Your task to perform on an android device: delete a single message in the gmail app Image 0: 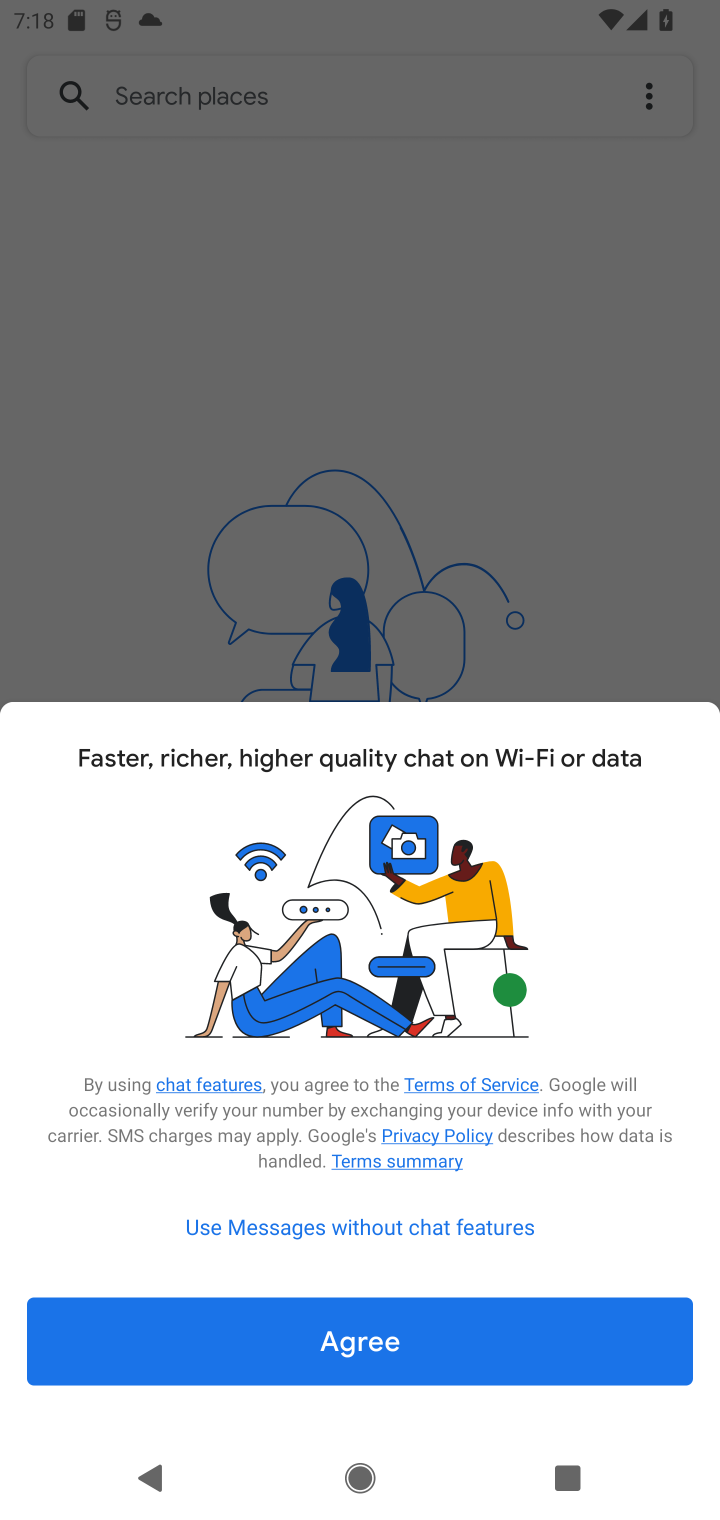
Step 0: press home button
Your task to perform on an android device: delete a single message in the gmail app Image 1: 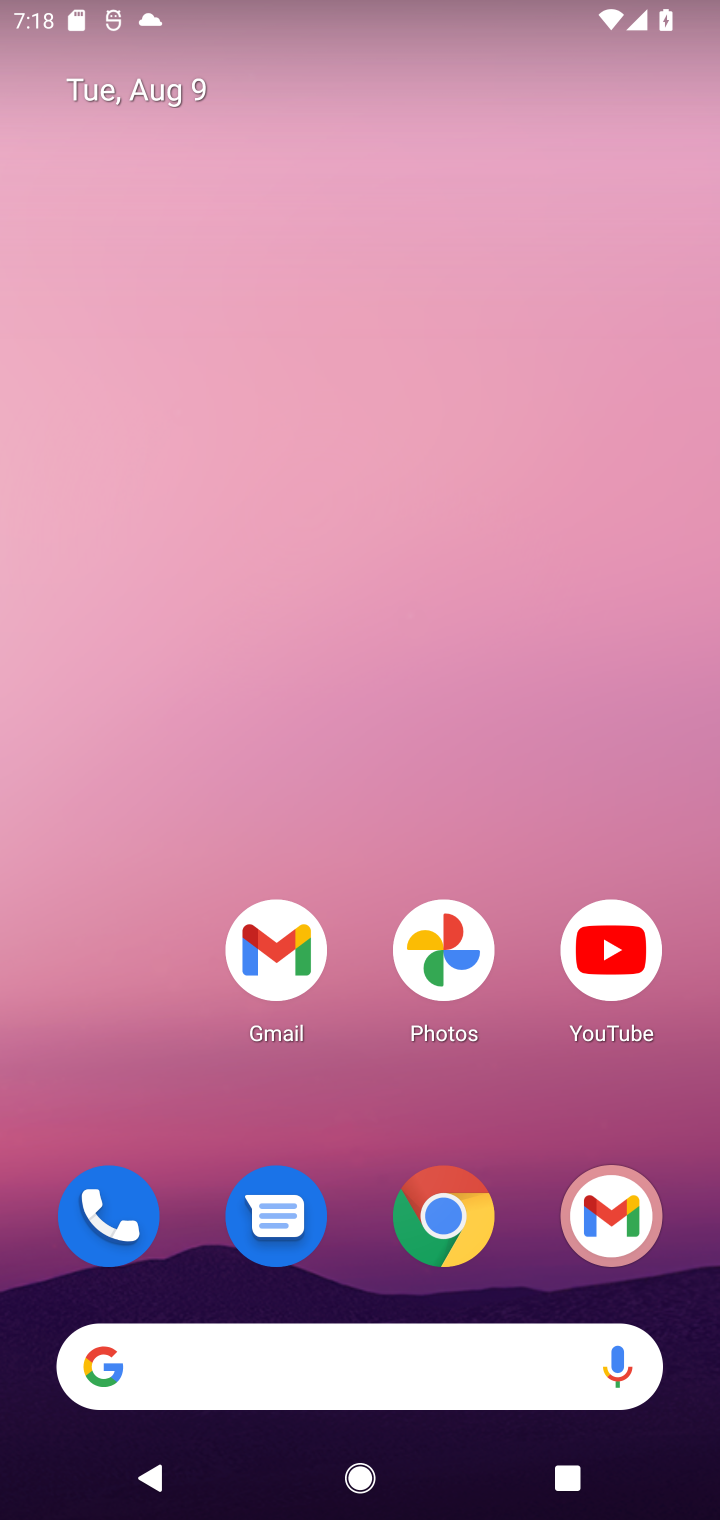
Step 1: click (280, 955)
Your task to perform on an android device: delete a single message in the gmail app Image 2: 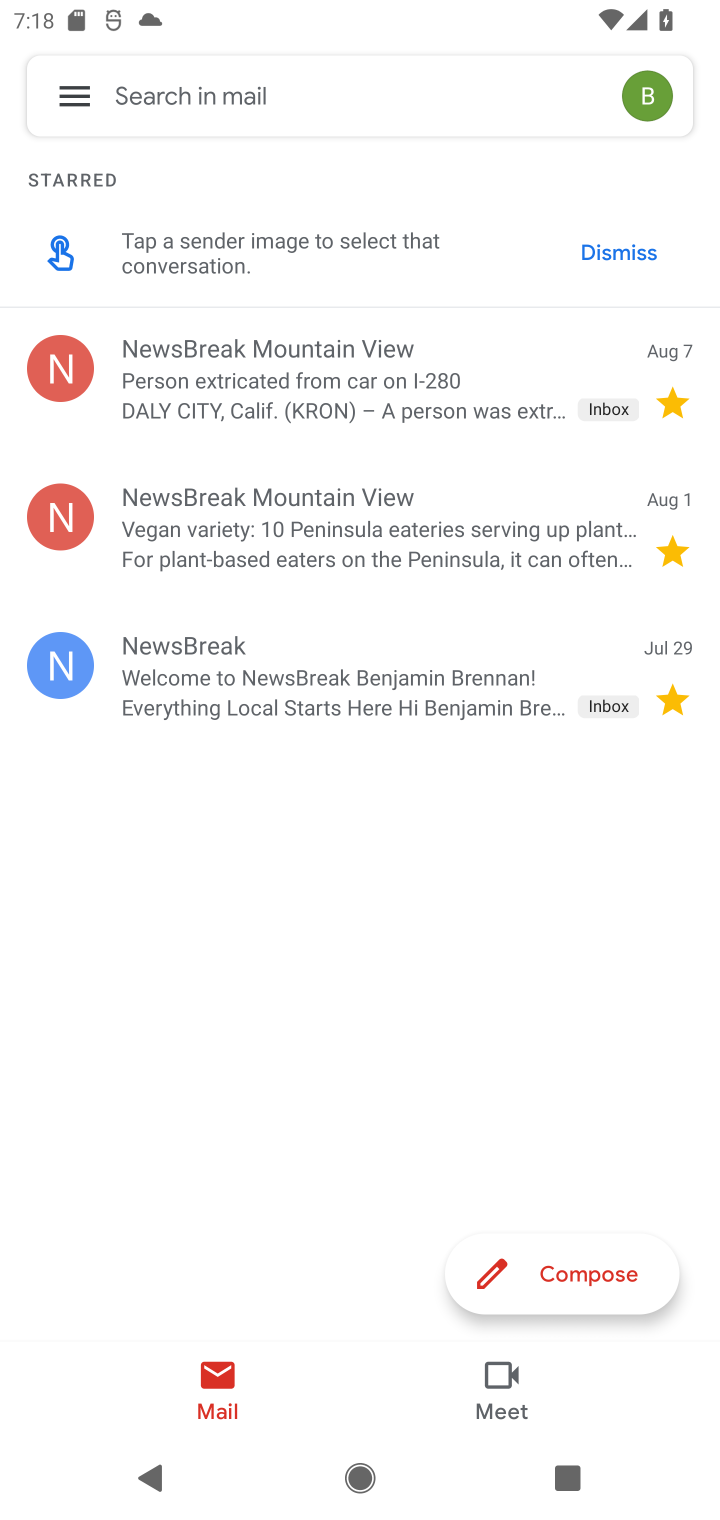
Step 2: click (69, 81)
Your task to perform on an android device: delete a single message in the gmail app Image 3: 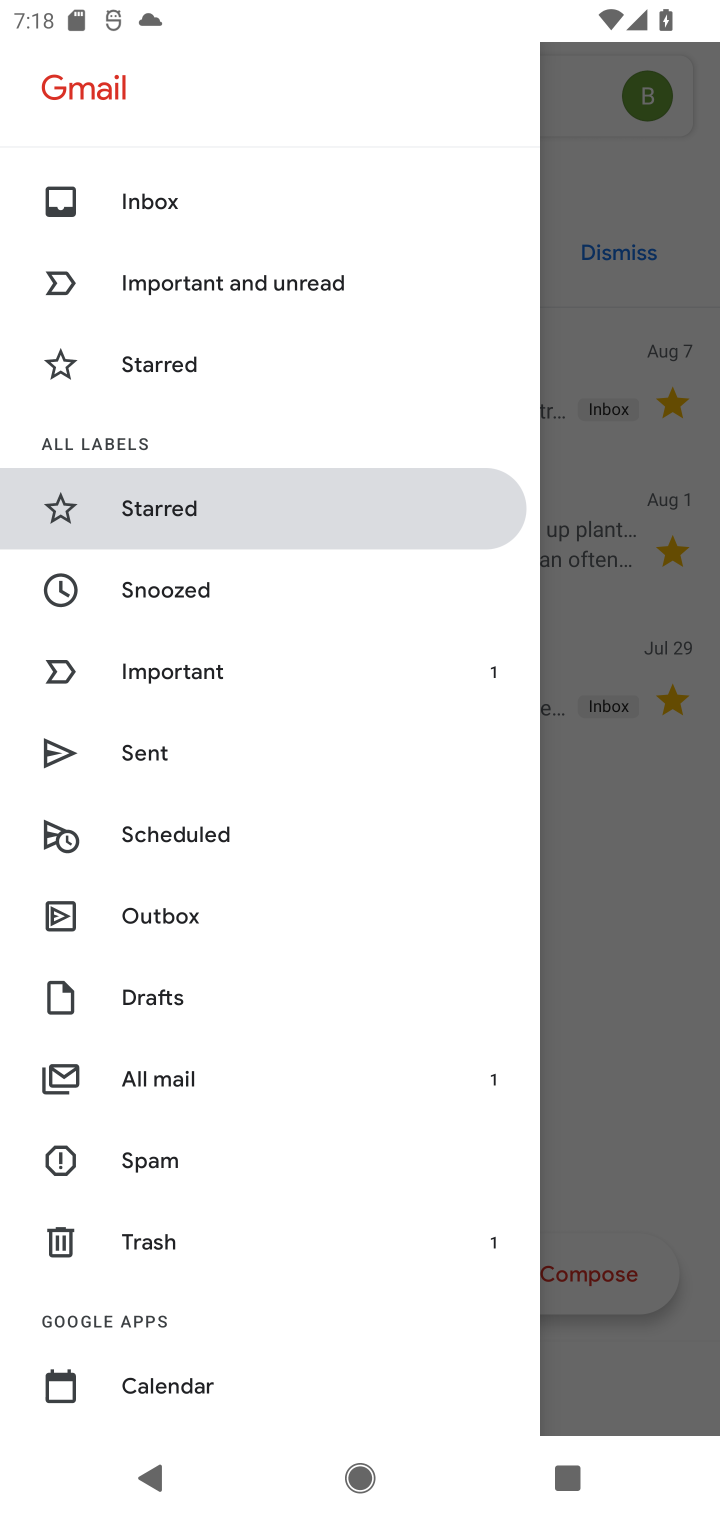
Step 3: click (189, 1074)
Your task to perform on an android device: delete a single message in the gmail app Image 4: 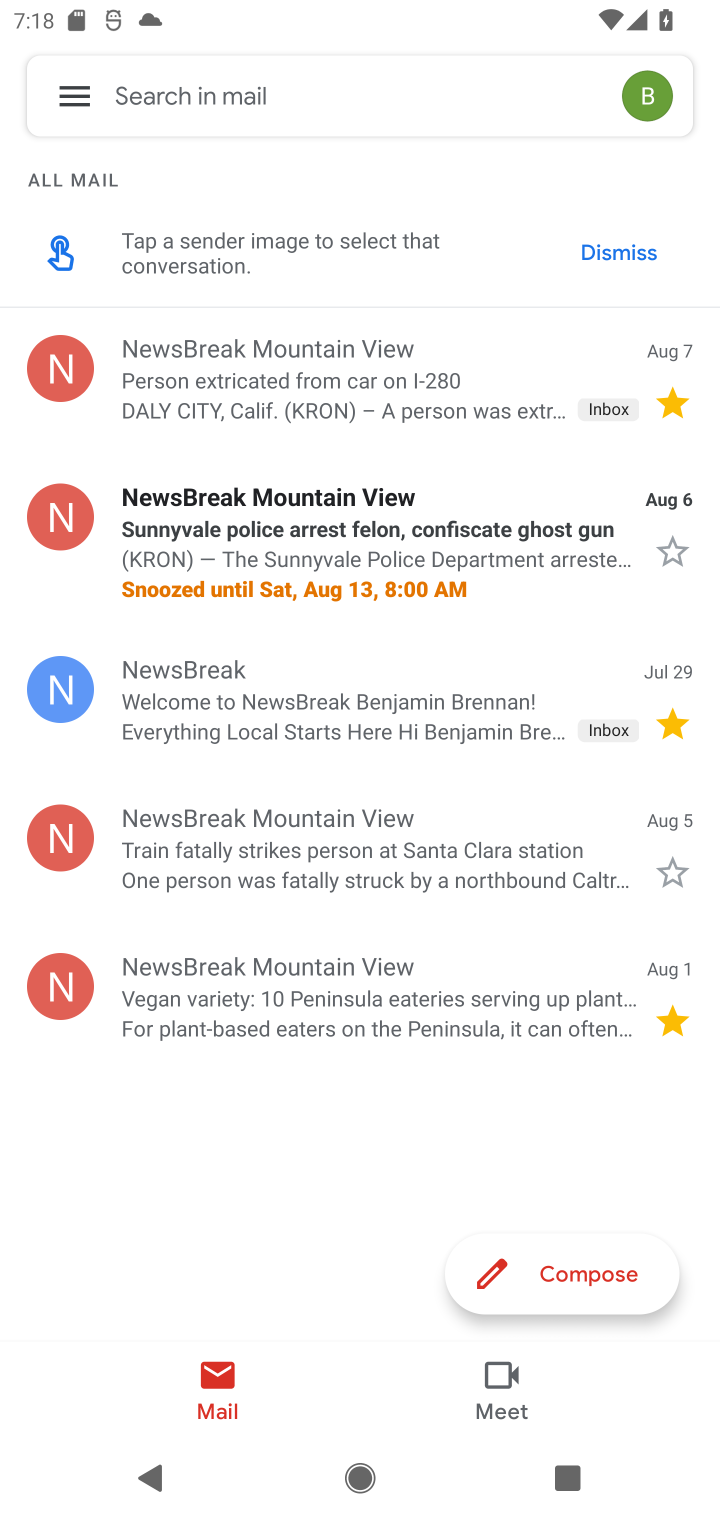
Step 4: click (261, 335)
Your task to perform on an android device: delete a single message in the gmail app Image 5: 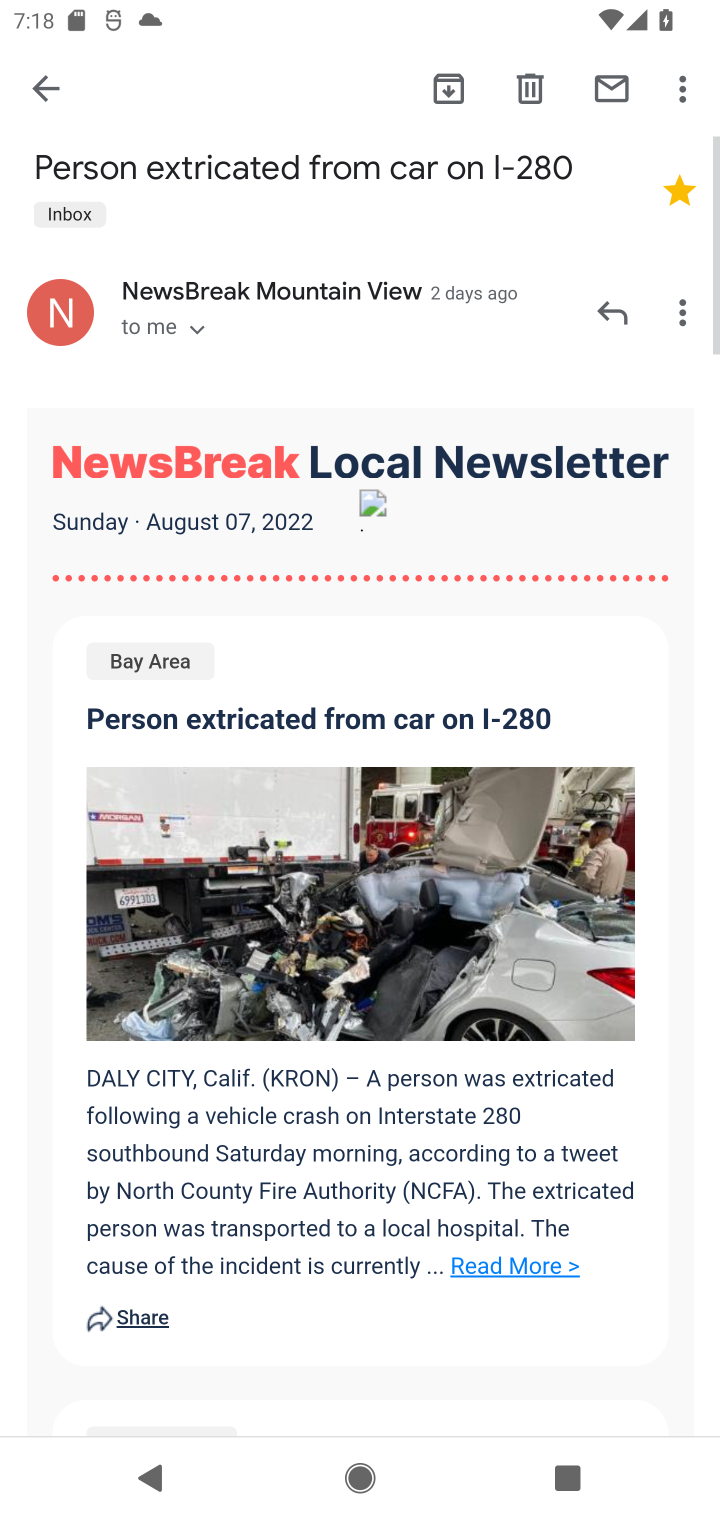
Step 5: click (533, 71)
Your task to perform on an android device: delete a single message in the gmail app Image 6: 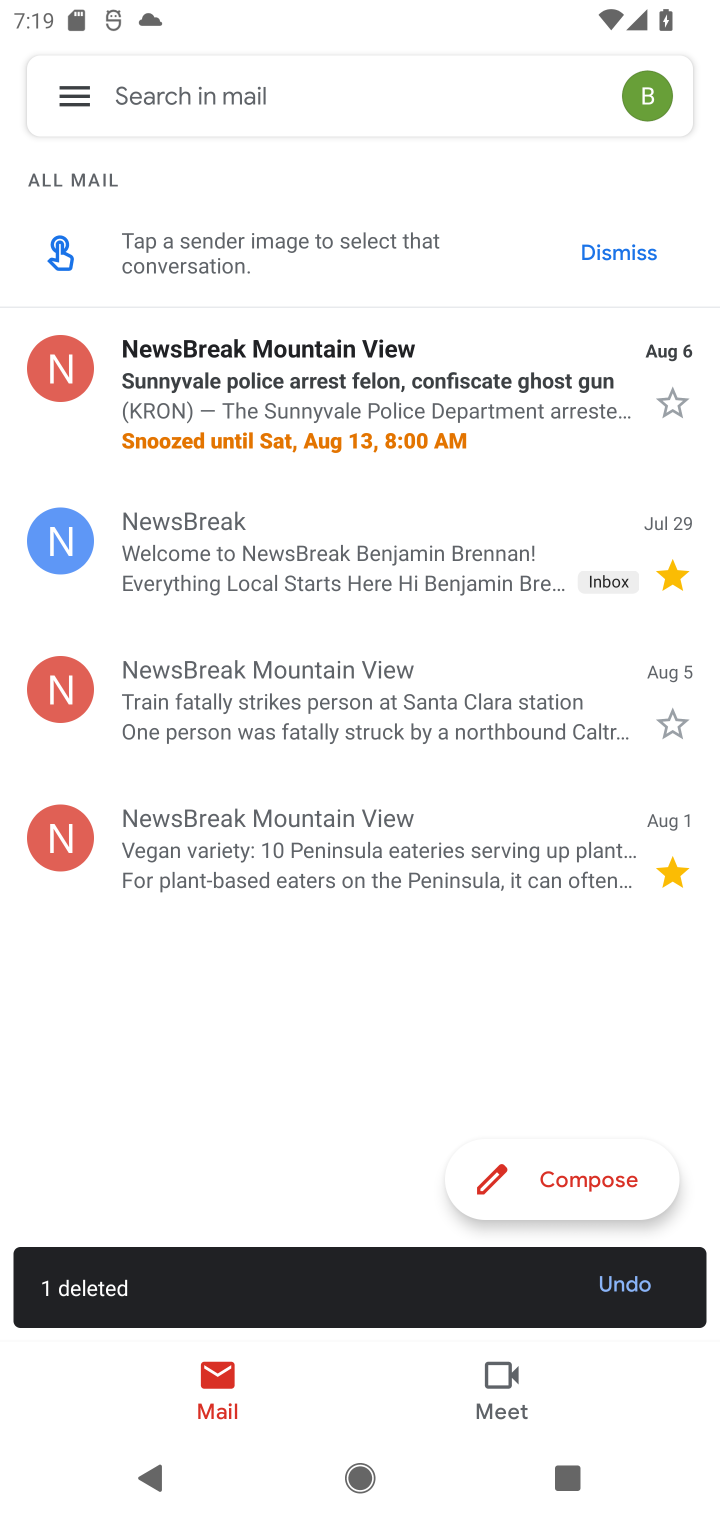
Step 6: task complete